Your task to perform on an android device: turn on improve location accuracy Image 0: 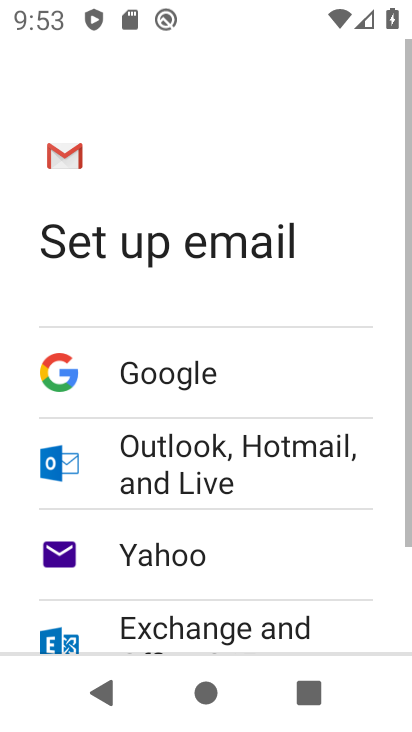
Step 0: press home button
Your task to perform on an android device: turn on improve location accuracy Image 1: 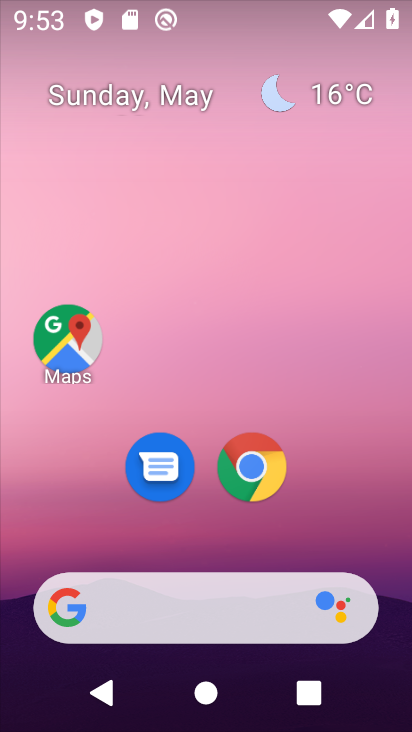
Step 1: drag from (348, 524) to (330, 169)
Your task to perform on an android device: turn on improve location accuracy Image 2: 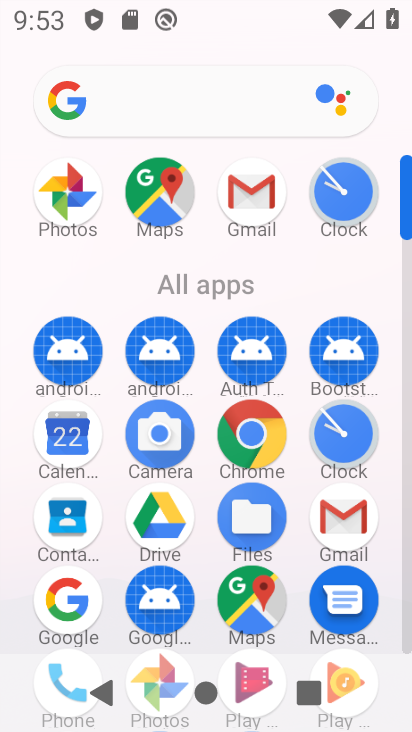
Step 2: drag from (302, 541) to (304, 266)
Your task to perform on an android device: turn on improve location accuracy Image 3: 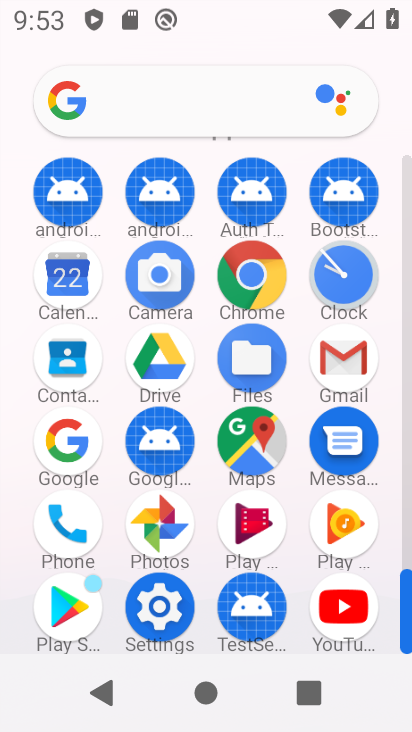
Step 3: click (161, 608)
Your task to perform on an android device: turn on improve location accuracy Image 4: 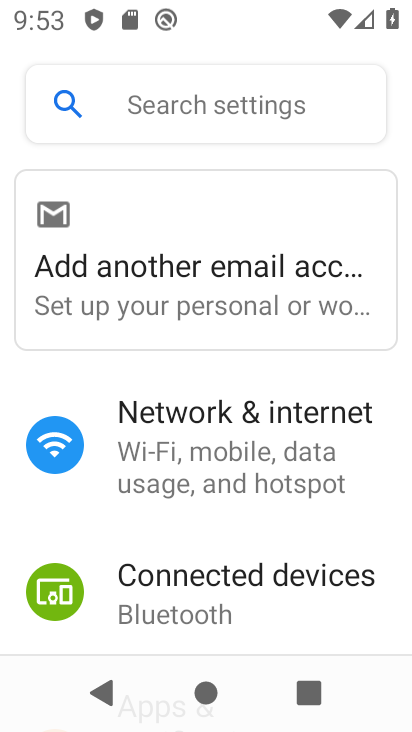
Step 4: drag from (241, 529) to (321, 224)
Your task to perform on an android device: turn on improve location accuracy Image 5: 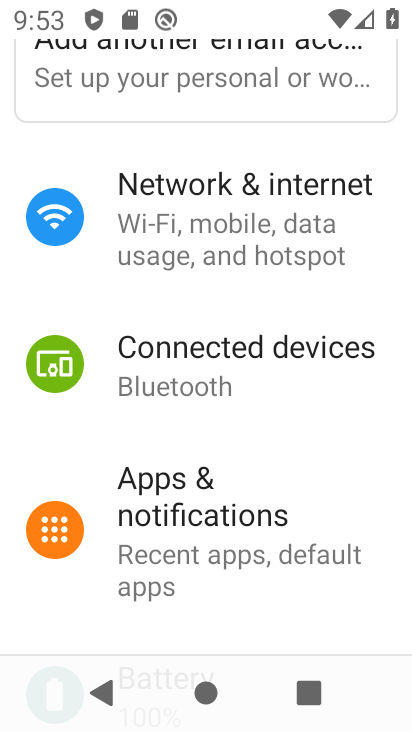
Step 5: drag from (291, 609) to (321, 296)
Your task to perform on an android device: turn on improve location accuracy Image 6: 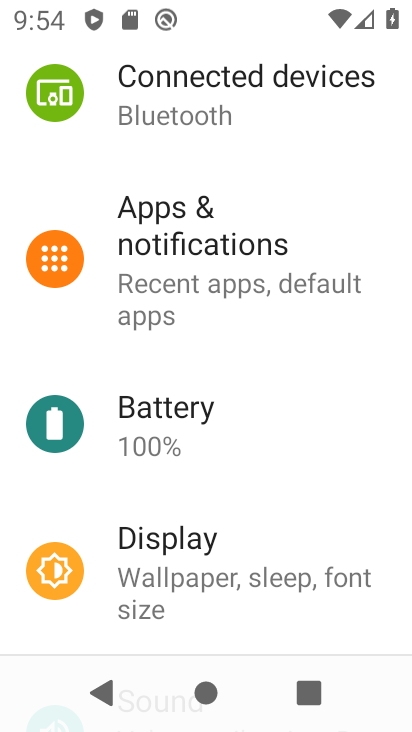
Step 6: drag from (295, 312) to (252, 533)
Your task to perform on an android device: turn on improve location accuracy Image 7: 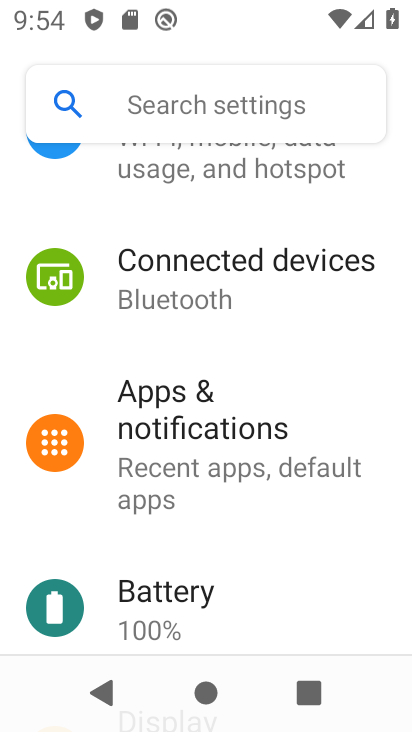
Step 7: drag from (337, 580) to (315, 198)
Your task to perform on an android device: turn on improve location accuracy Image 8: 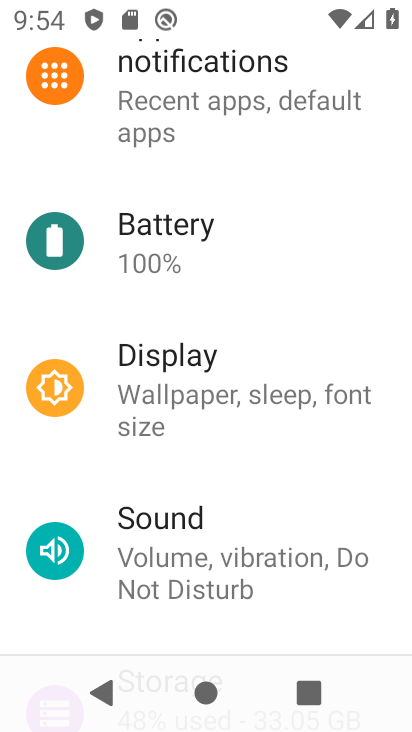
Step 8: drag from (275, 520) to (262, 163)
Your task to perform on an android device: turn on improve location accuracy Image 9: 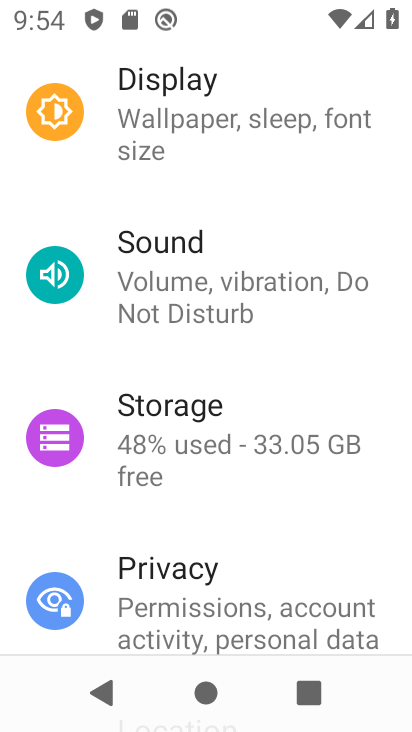
Step 9: drag from (235, 454) to (229, 144)
Your task to perform on an android device: turn on improve location accuracy Image 10: 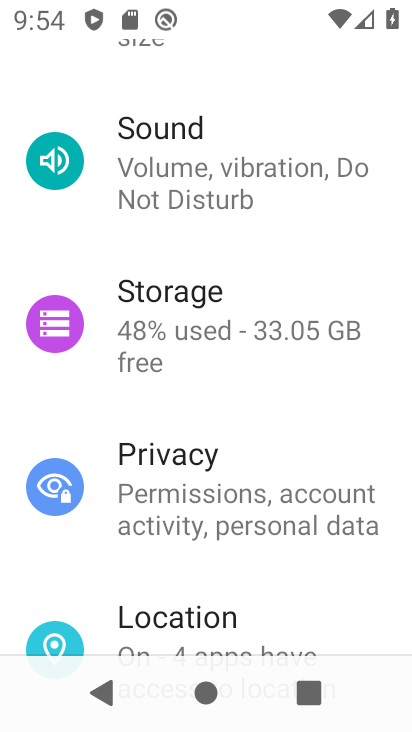
Step 10: click (231, 615)
Your task to perform on an android device: turn on improve location accuracy Image 11: 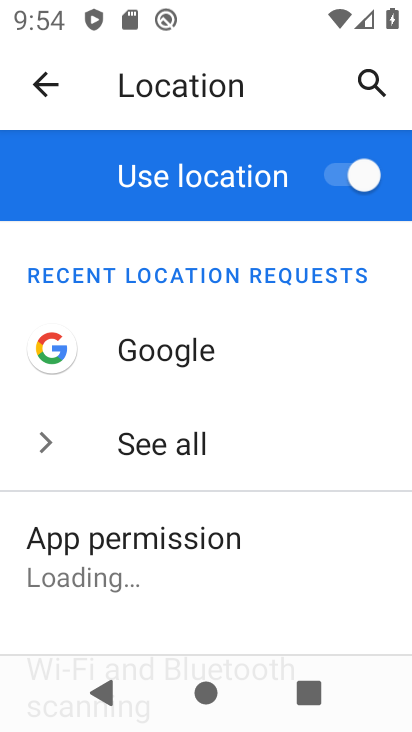
Step 11: drag from (282, 592) to (243, 330)
Your task to perform on an android device: turn on improve location accuracy Image 12: 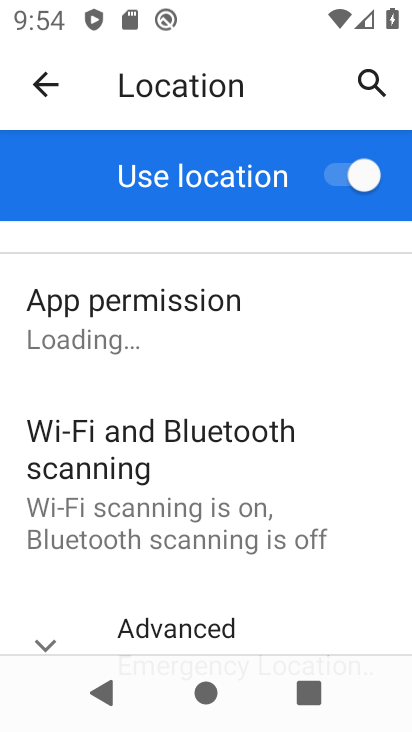
Step 12: drag from (283, 600) to (297, 255)
Your task to perform on an android device: turn on improve location accuracy Image 13: 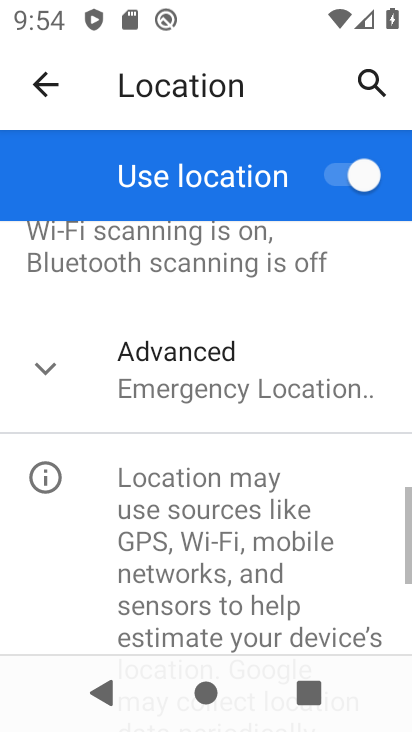
Step 13: click (283, 367)
Your task to perform on an android device: turn on improve location accuracy Image 14: 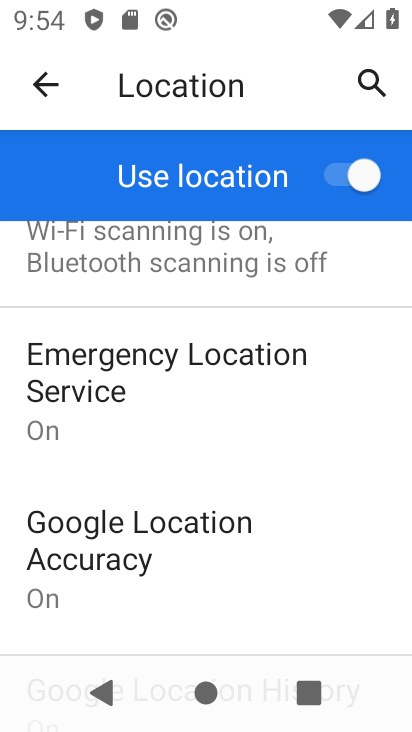
Step 14: click (141, 565)
Your task to perform on an android device: turn on improve location accuracy Image 15: 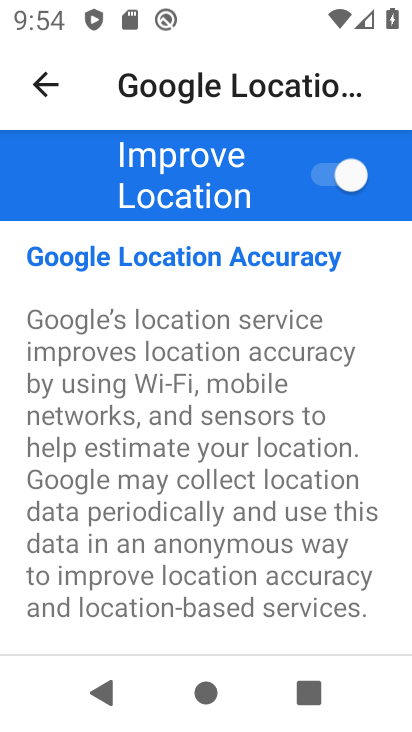
Step 15: task complete